Your task to perform on an android device: open app "Paramount+ | Peak Streaming" Image 0: 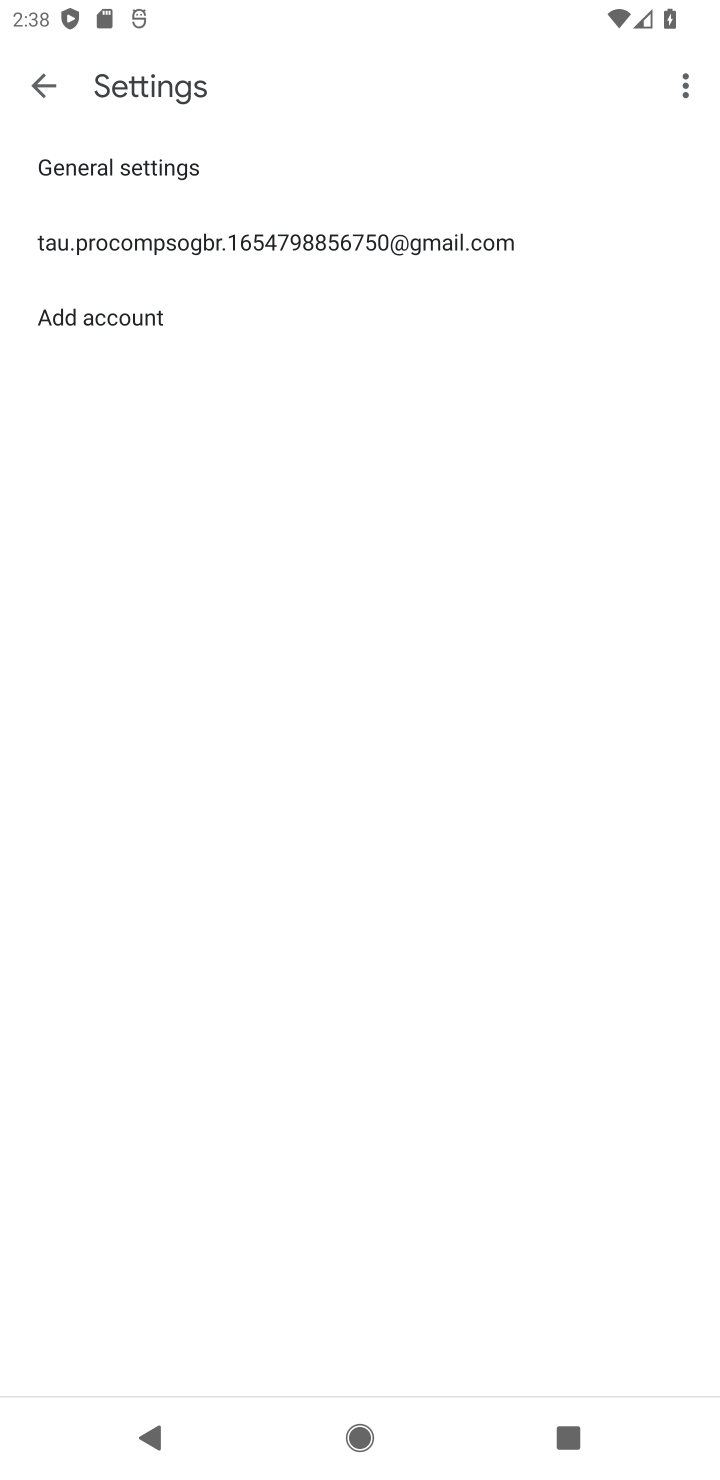
Step 0: press home button
Your task to perform on an android device: open app "Paramount+ | Peak Streaming" Image 1: 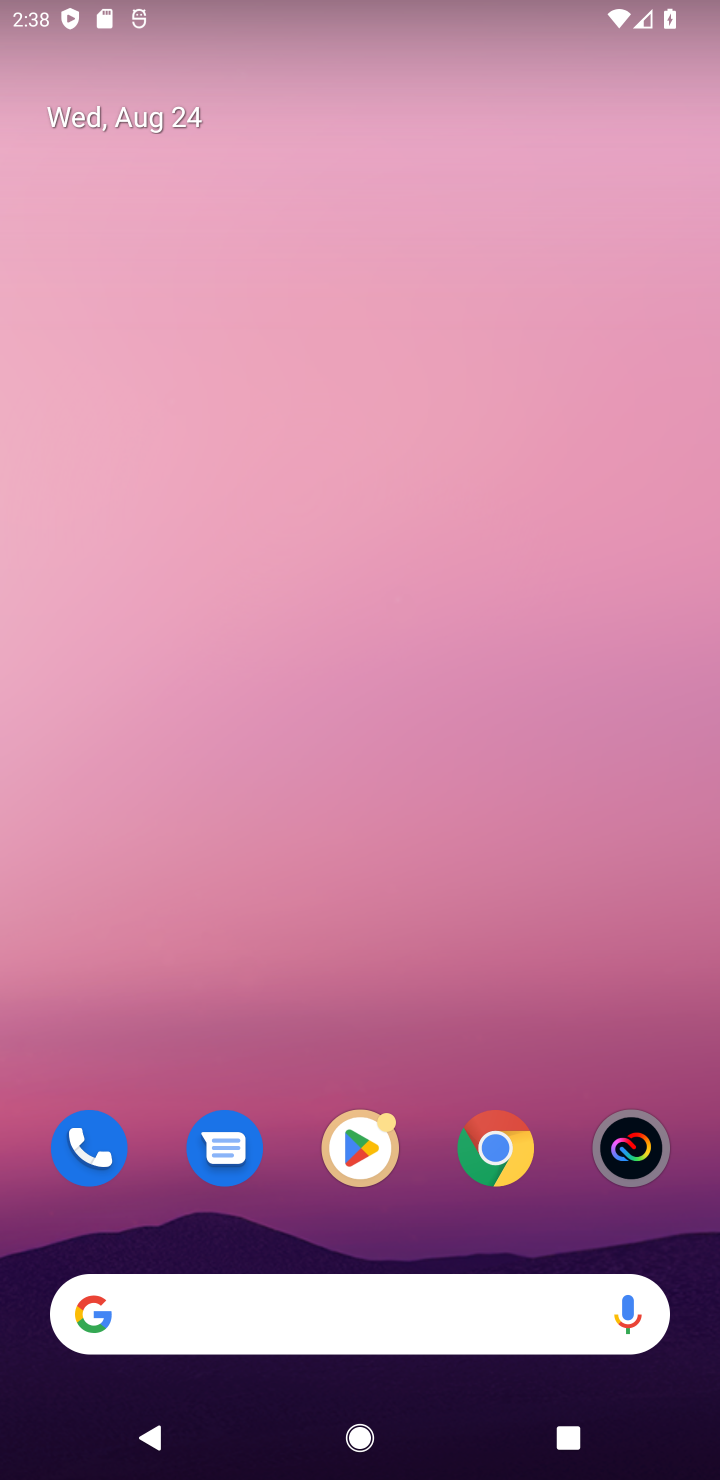
Step 1: drag from (314, 1219) to (375, 279)
Your task to perform on an android device: open app "Paramount+ | Peak Streaming" Image 2: 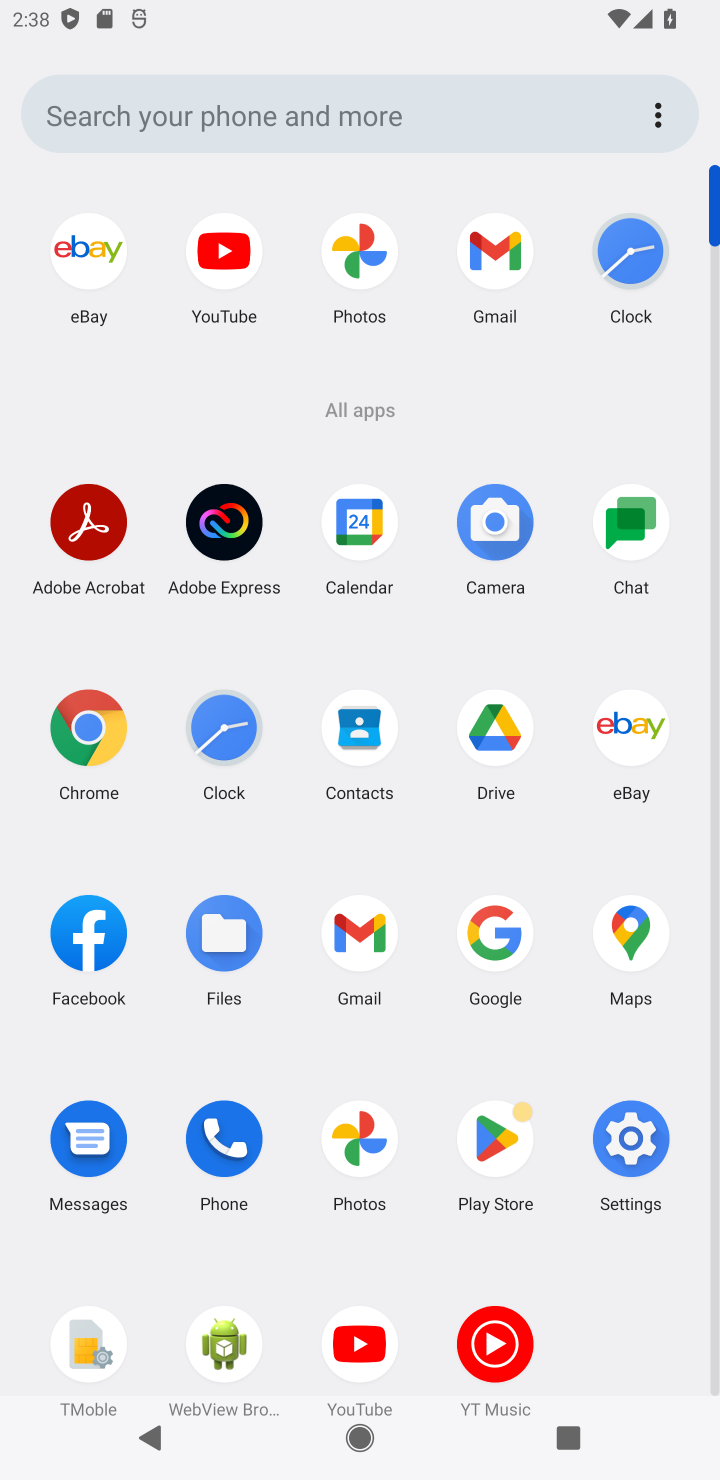
Step 2: click (489, 1133)
Your task to perform on an android device: open app "Paramount+ | Peak Streaming" Image 3: 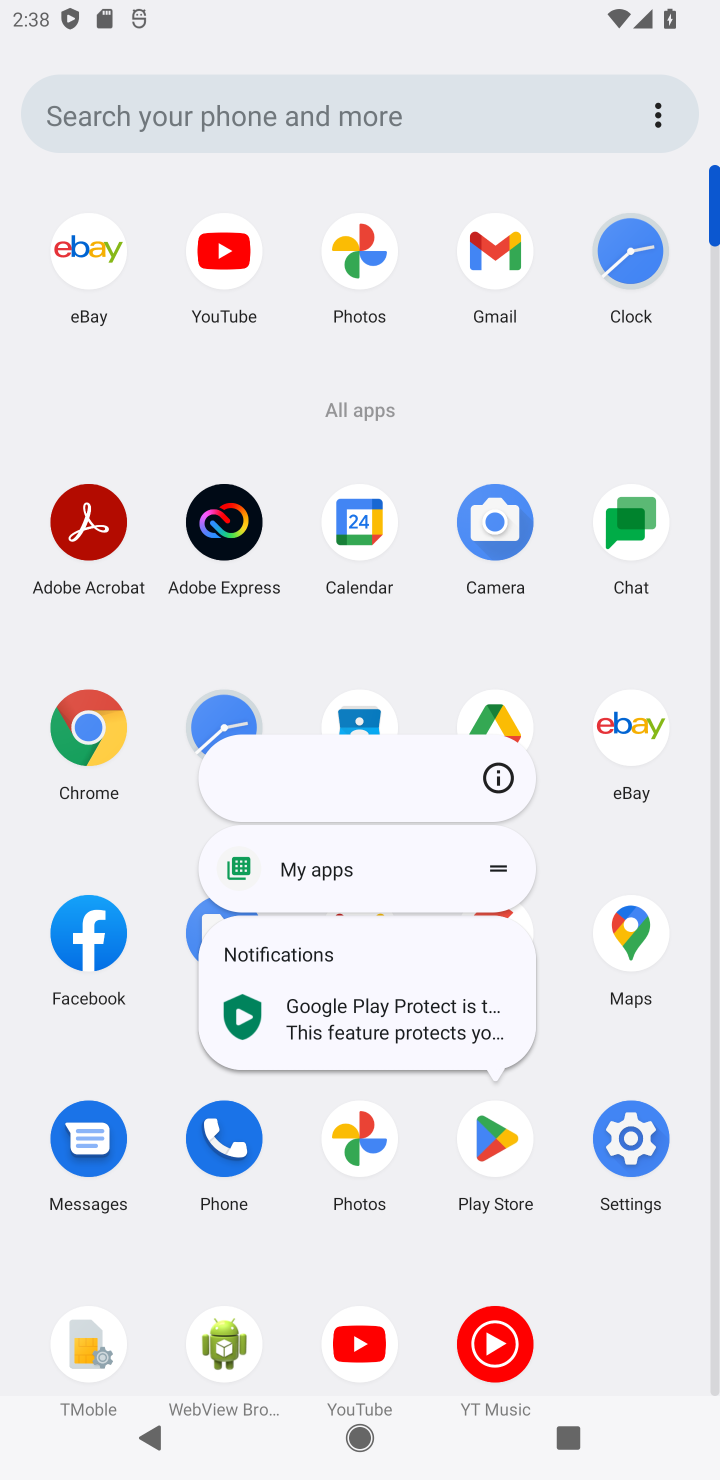
Step 3: click (489, 1133)
Your task to perform on an android device: open app "Paramount+ | Peak Streaming" Image 4: 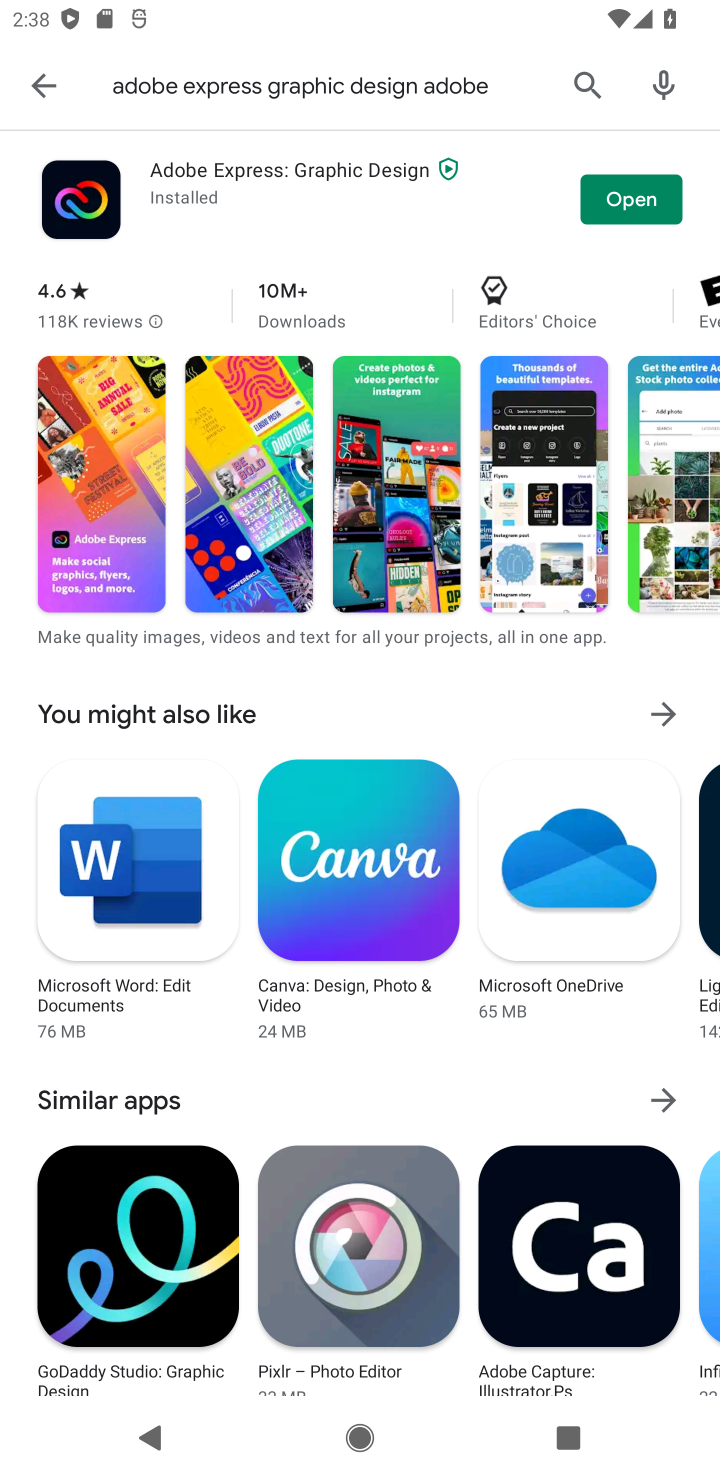
Step 4: click (37, 65)
Your task to perform on an android device: open app "Paramount+ | Peak Streaming" Image 5: 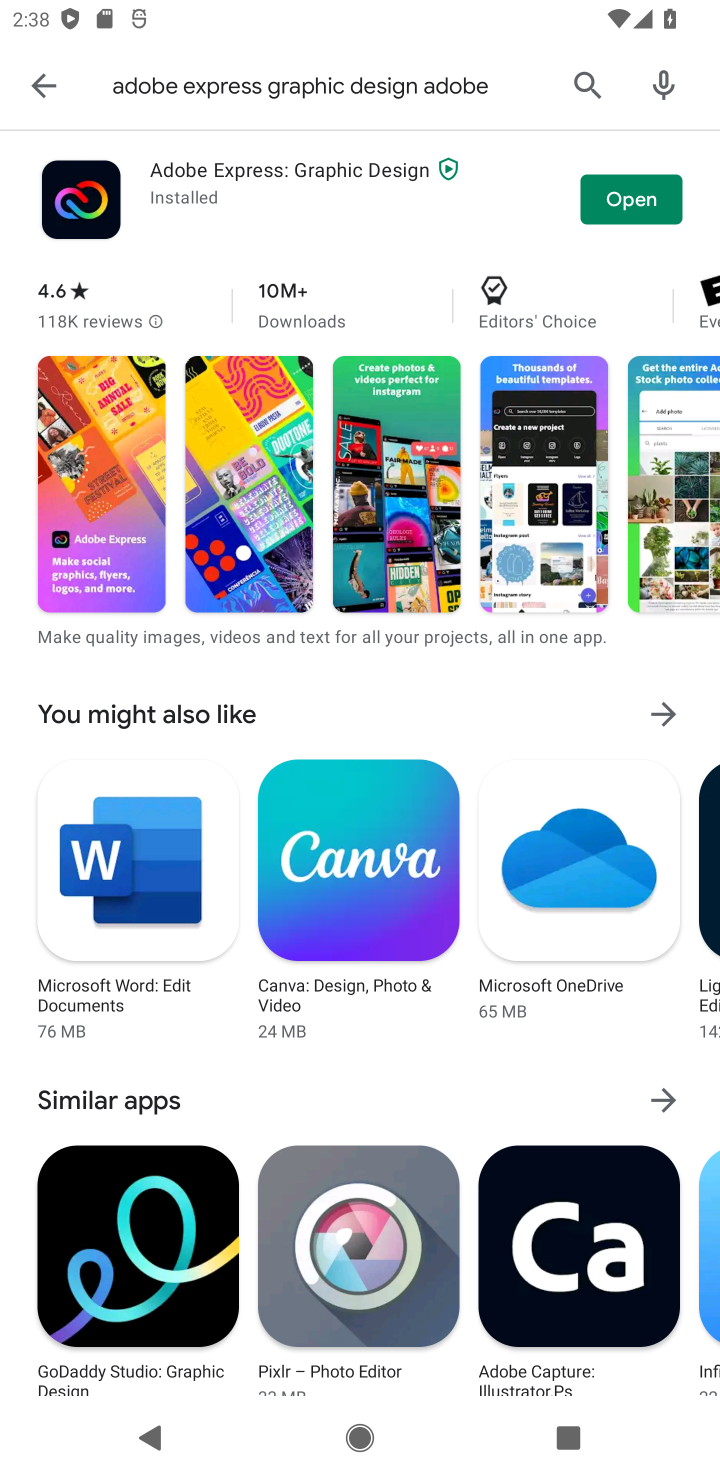
Step 5: click (55, 88)
Your task to perform on an android device: open app "Paramount+ | Peak Streaming" Image 6: 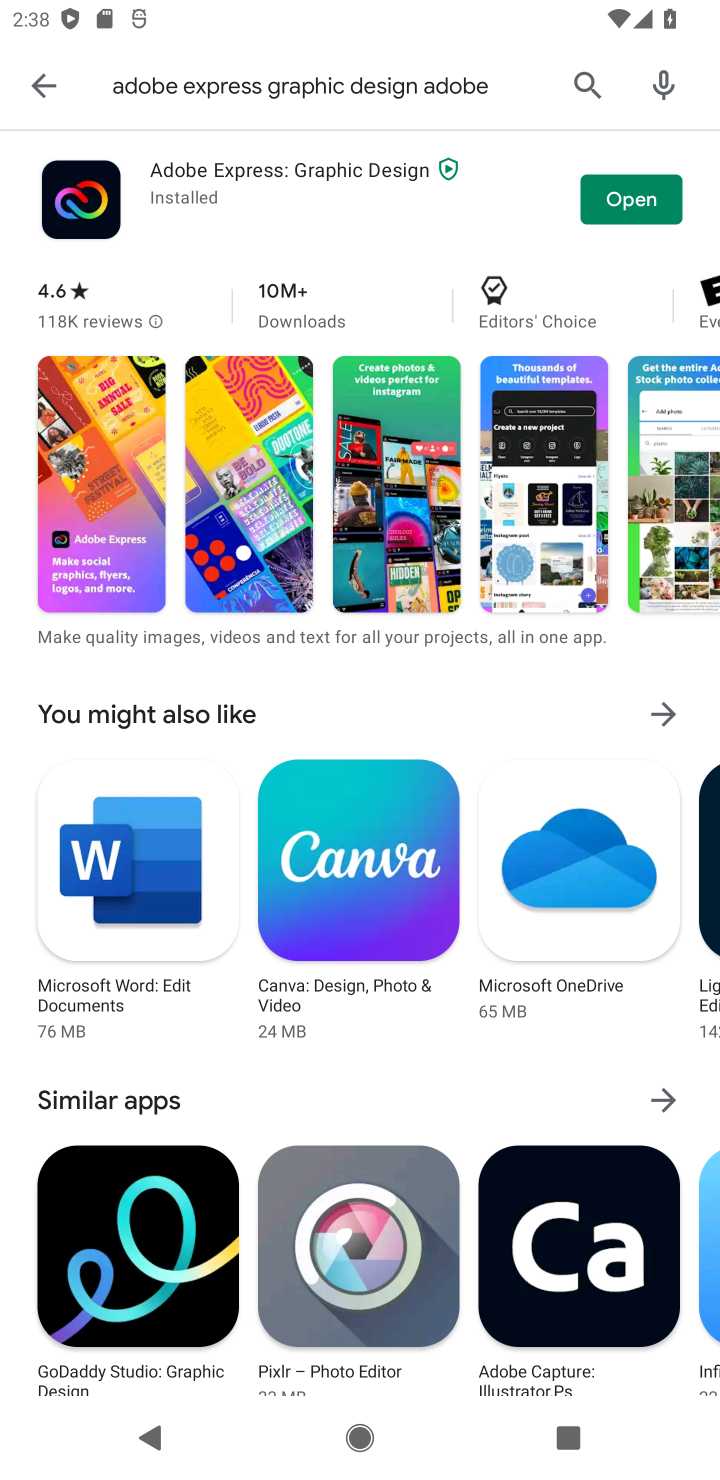
Step 6: click (36, 82)
Your task to perform on an android device: open app "Paramount+ | Peak Streaming" Image 7: 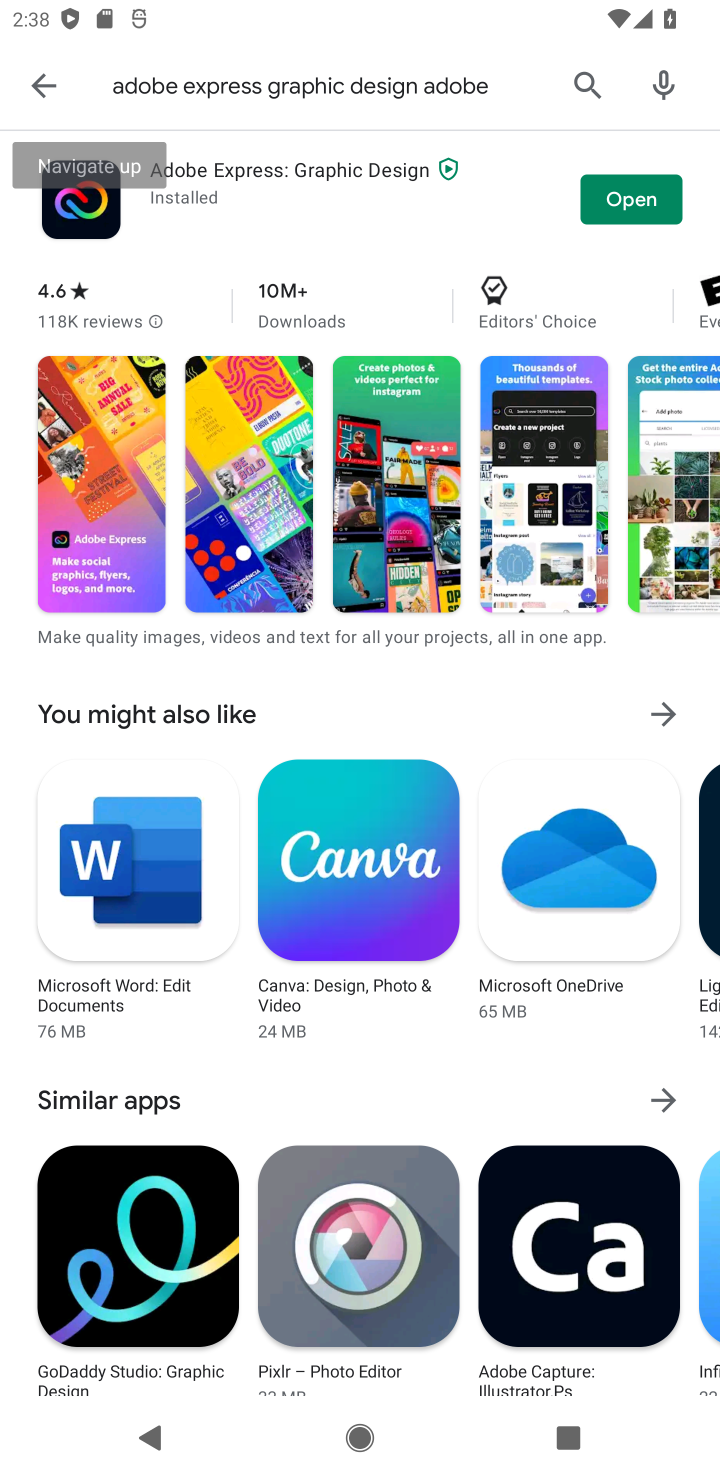
Step 7: click (565, 77)
Your task to perform on an android device: open app "Paramount+ | Peak Streaming" Image 8: 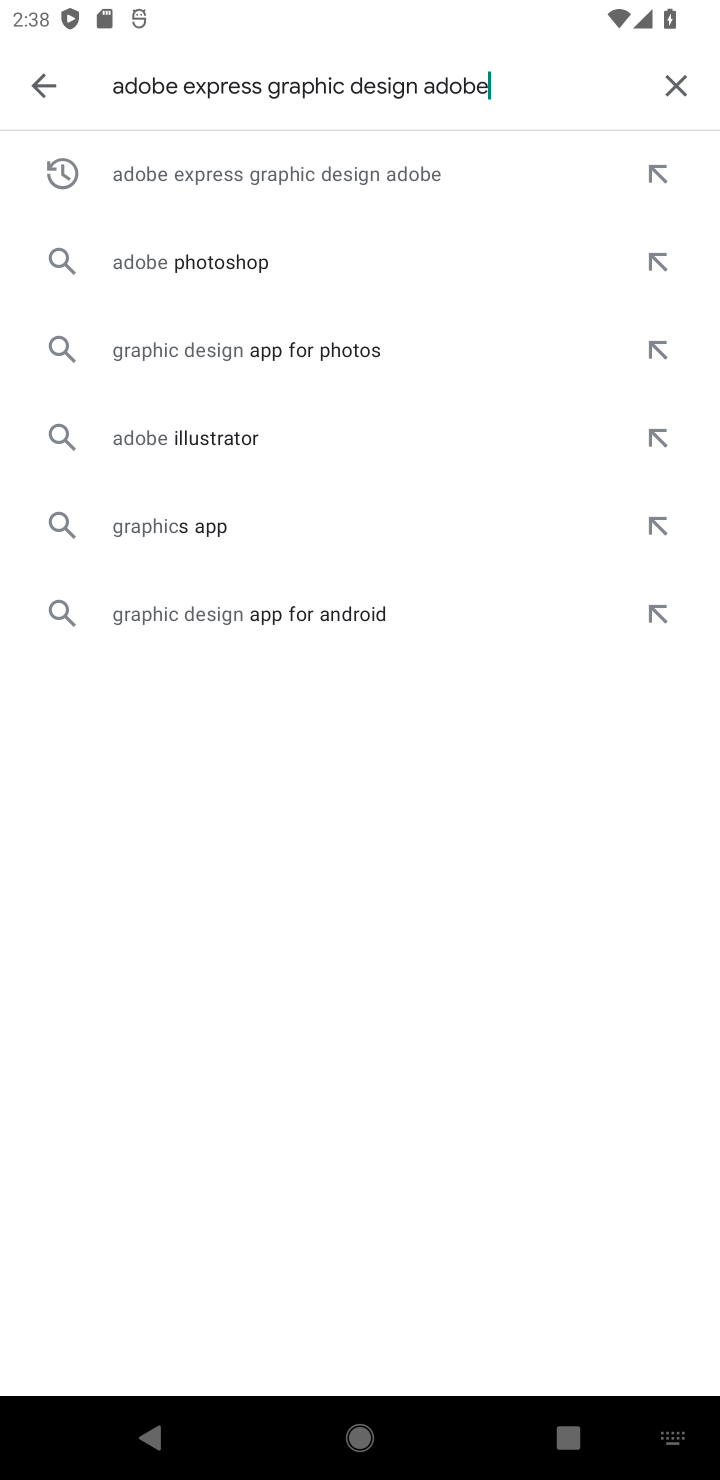
Step 8: click (711, 64)
Your task to perform on an android device: open app "Paramount+ | Peak Streaming" Image 9: 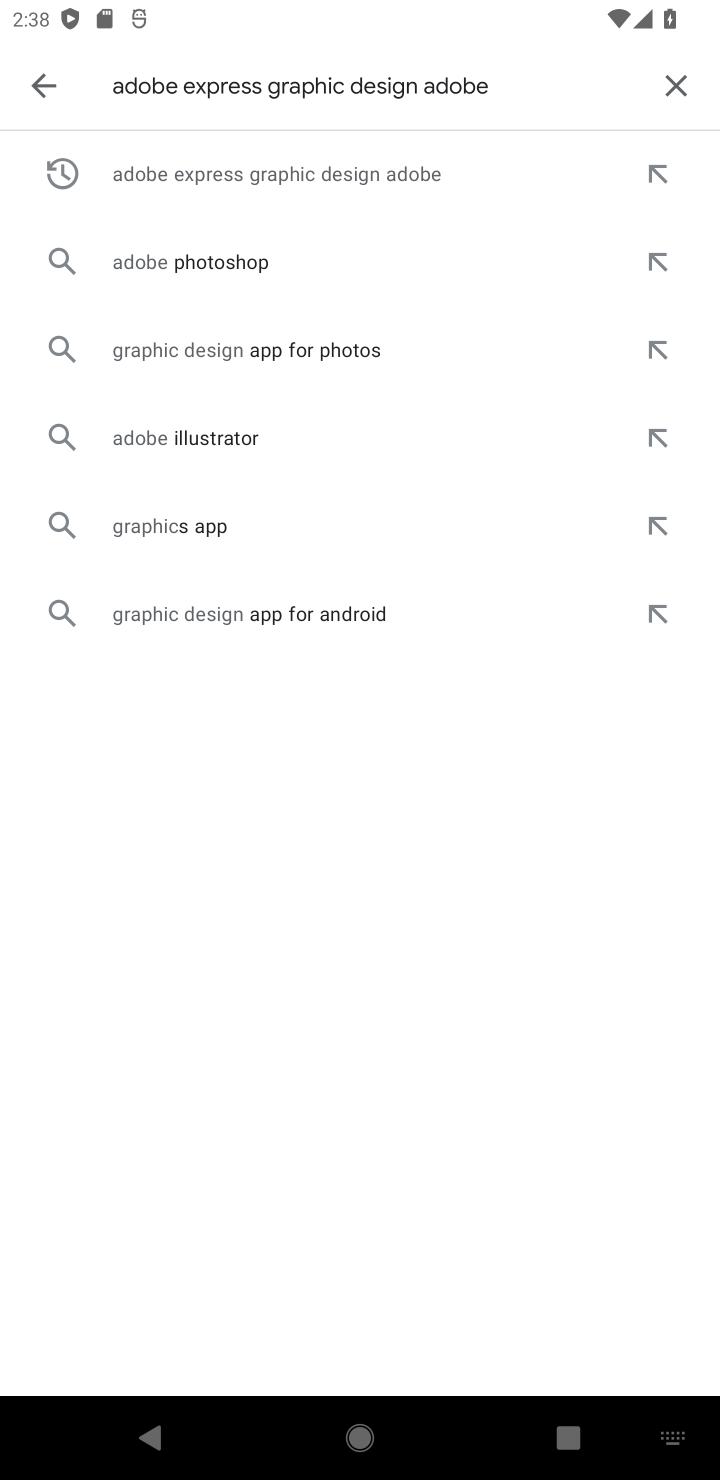
Step 9: click (692, 76)
Your task to perform on an android device: open app "Paramount+ | Peak Streaming" Image 10: 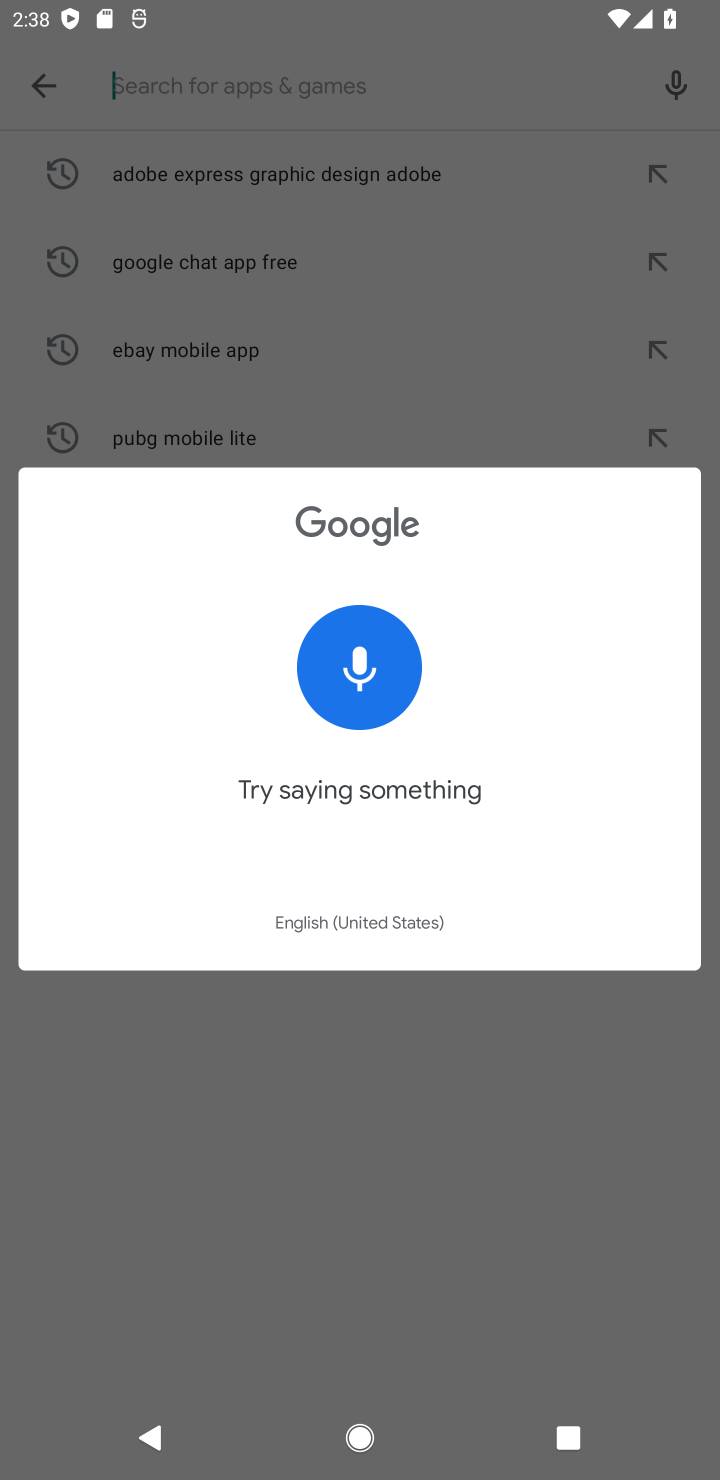
Step 10: click (347, 1031)
Your task to perform on an android device: open app "Paramount+ | Peak Streaming" Image 11: 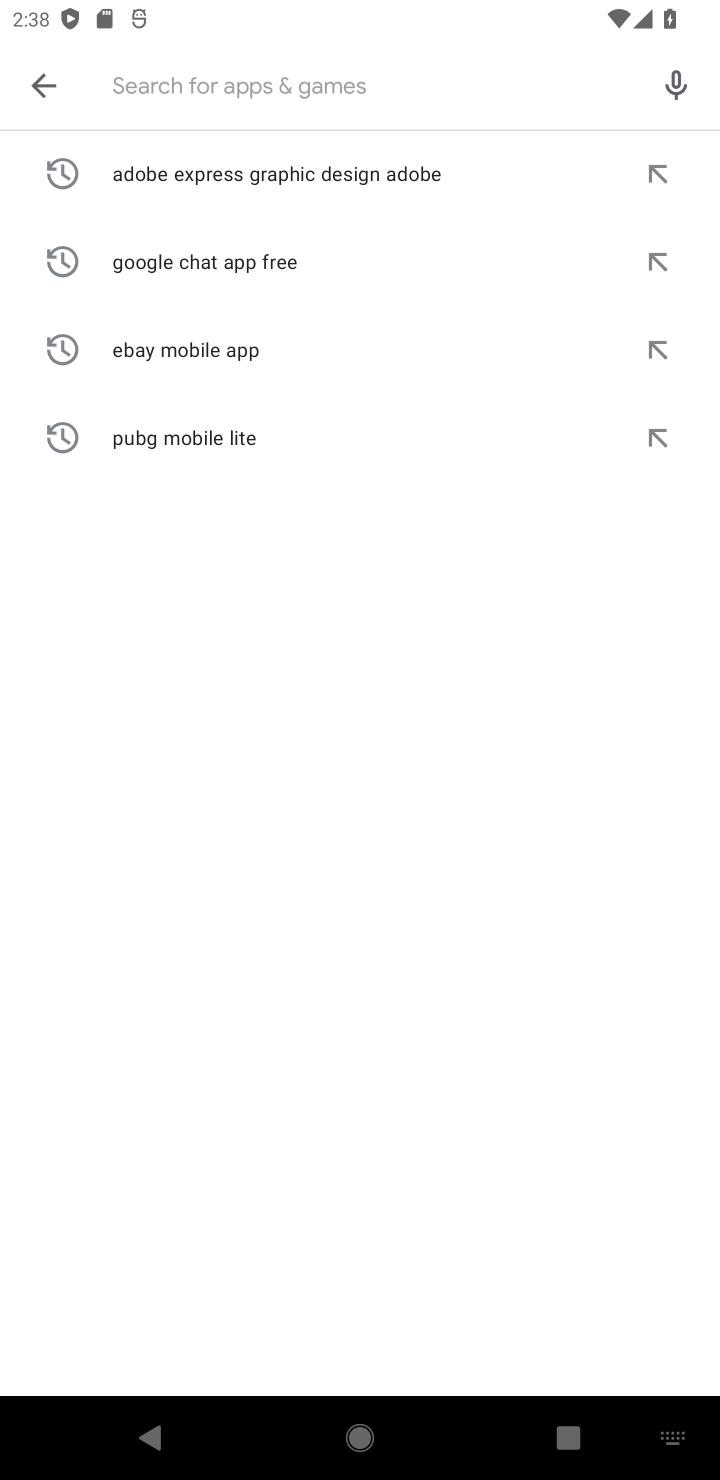
Step 11: click (434, 56)
Your task to perform on an android device: open app "Paramount+ | Peak Streaming" Image 12: 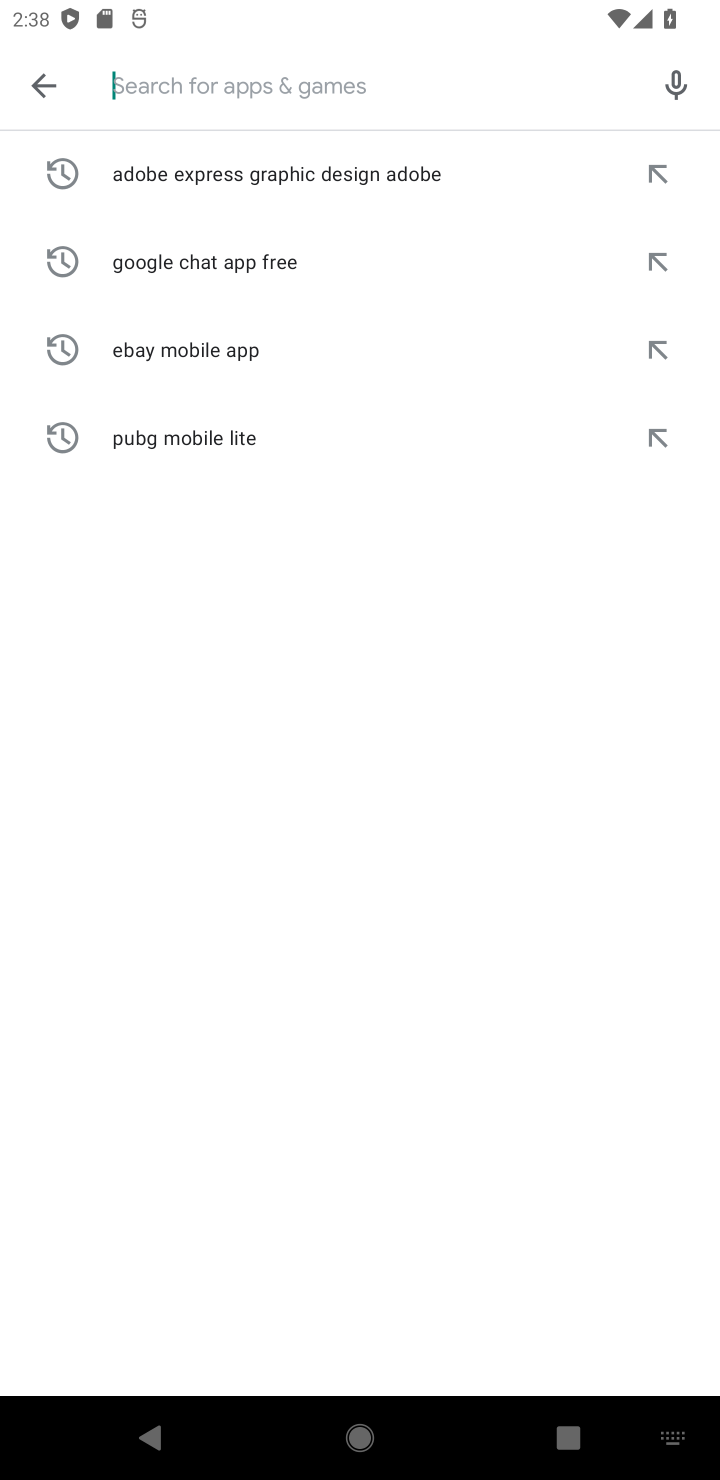
Step 12: type "Paramount+  "
Your task to perform on an android device: open app "Paramount+ | Peak Streaming" Image 13: 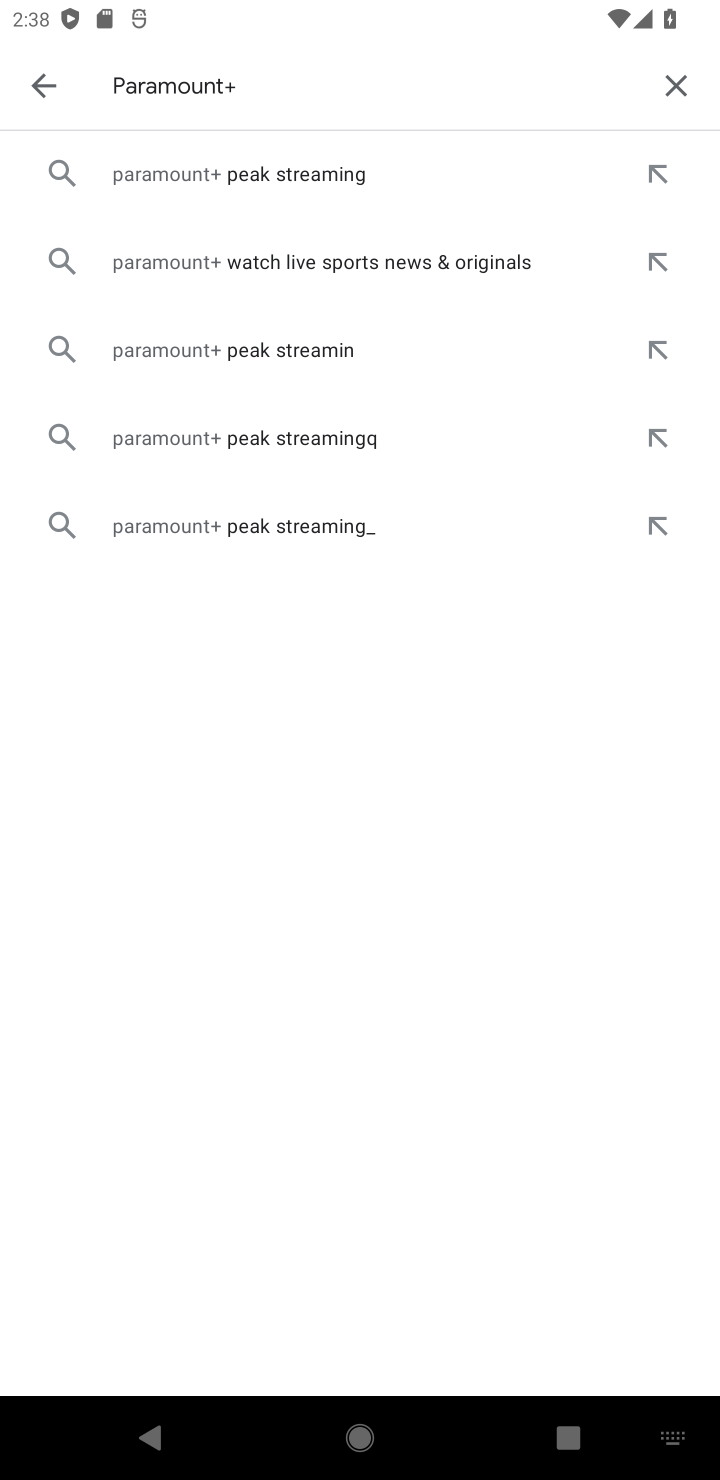
Step 13: click (349, 190)
Your task to perform on an android device: open app "Paramount+ | Peak Streaming" Image 14: 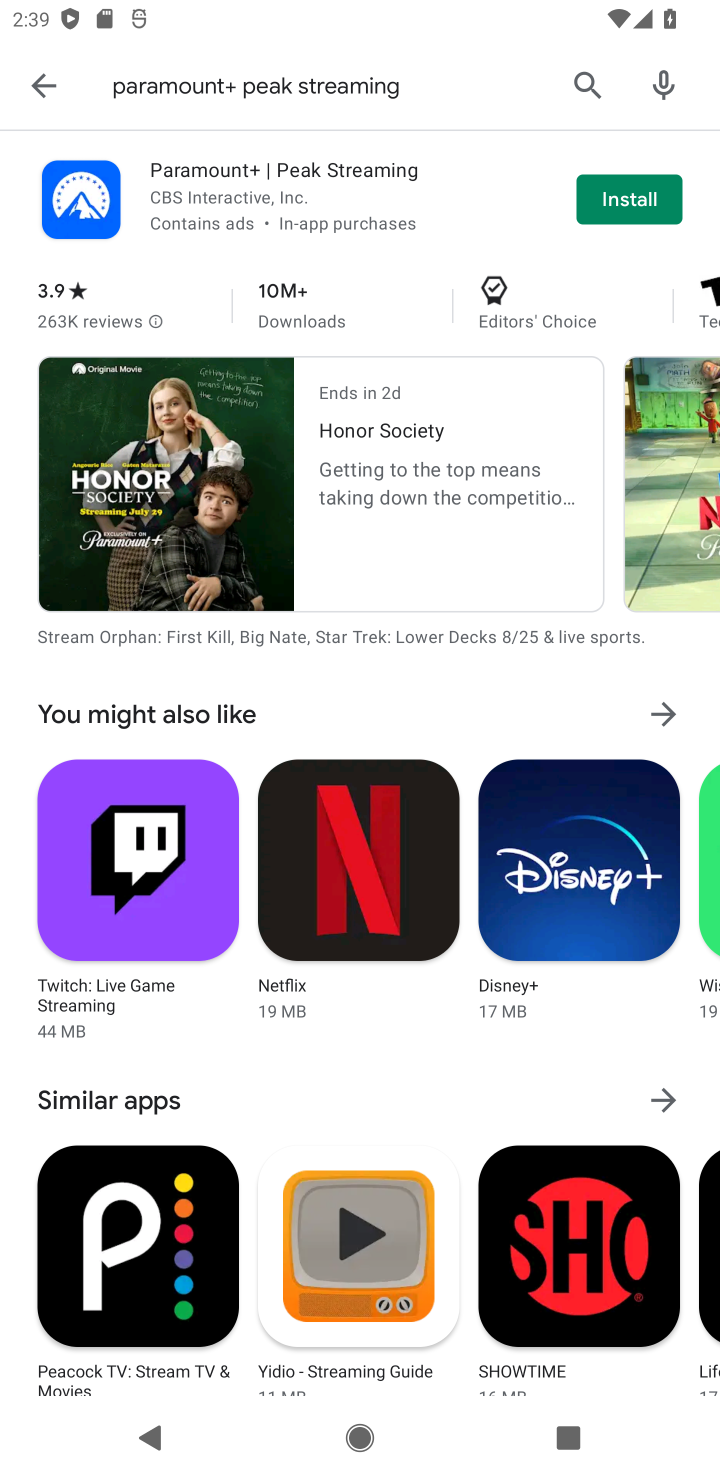
Step 14: click (608, 194)
Your task to perform on an android device: open app "Paramount+ | Peak Streaming" Image 15: 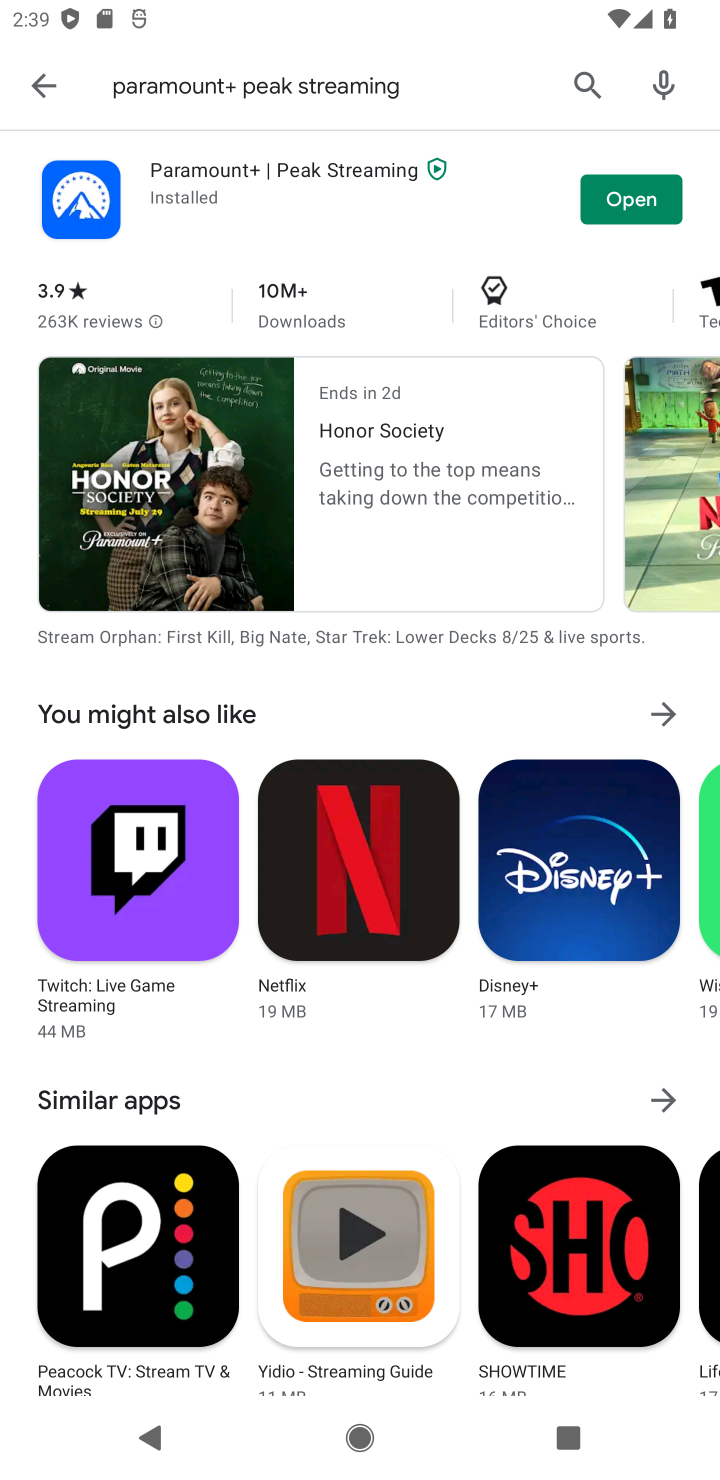
Step 15: click (612, 194)
Your task to perform on an android device: open app "Paramount+ | Peak Streaming" Image 16: 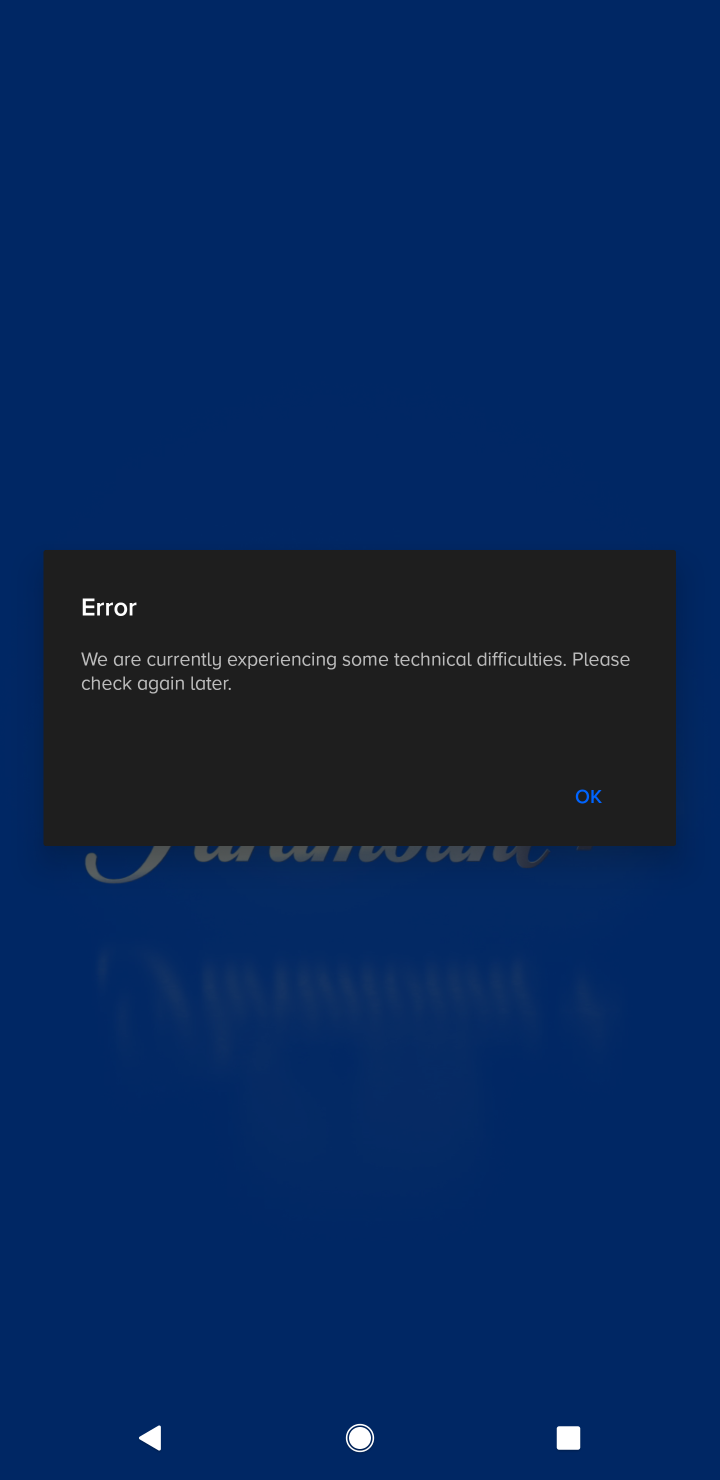
Step 16: task complete